Your task to perform on an android device: Search for hotels in London Image 0: 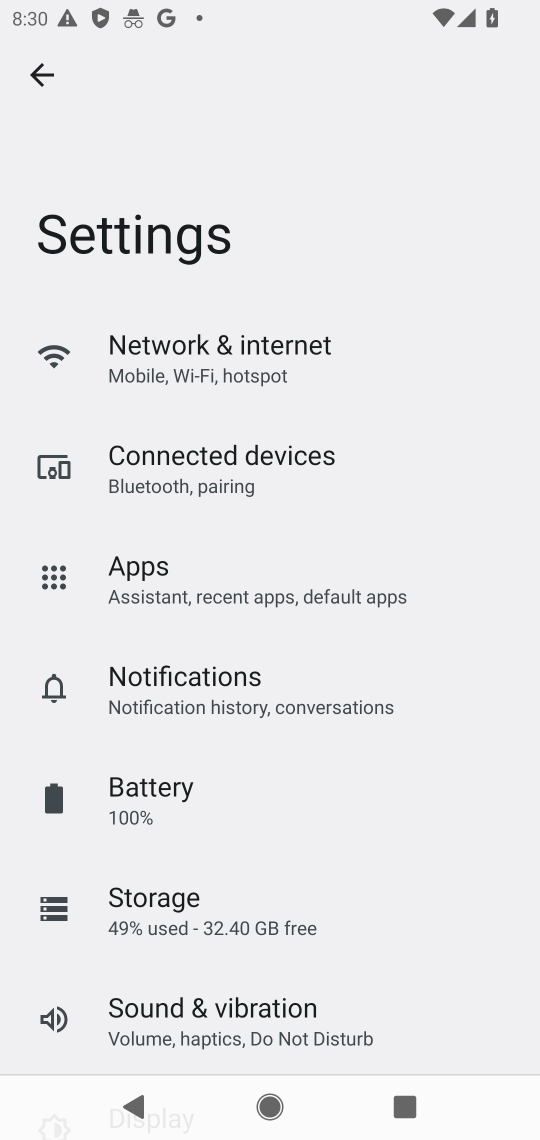
Step 0: press home button
Your task to perform on an android device: Search for hotels in London Image 1: 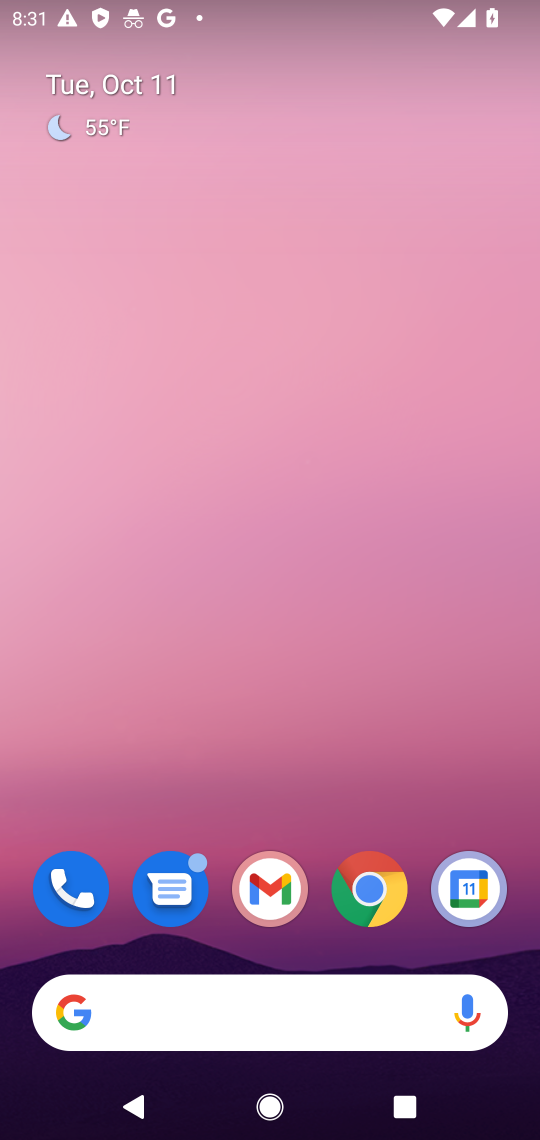
Step 1: click (280, 1011)
Your task to perform on an android device: Search for hotels in London Image 2: 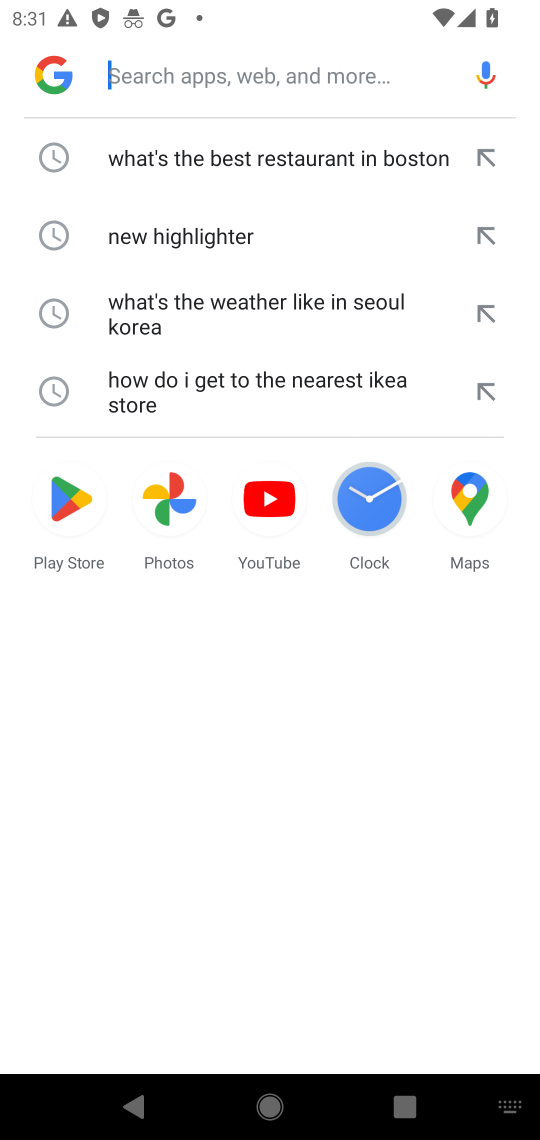
Step 2: click (149, 93)
Your task to perform on an android device: Search for hotels in London Image 3: 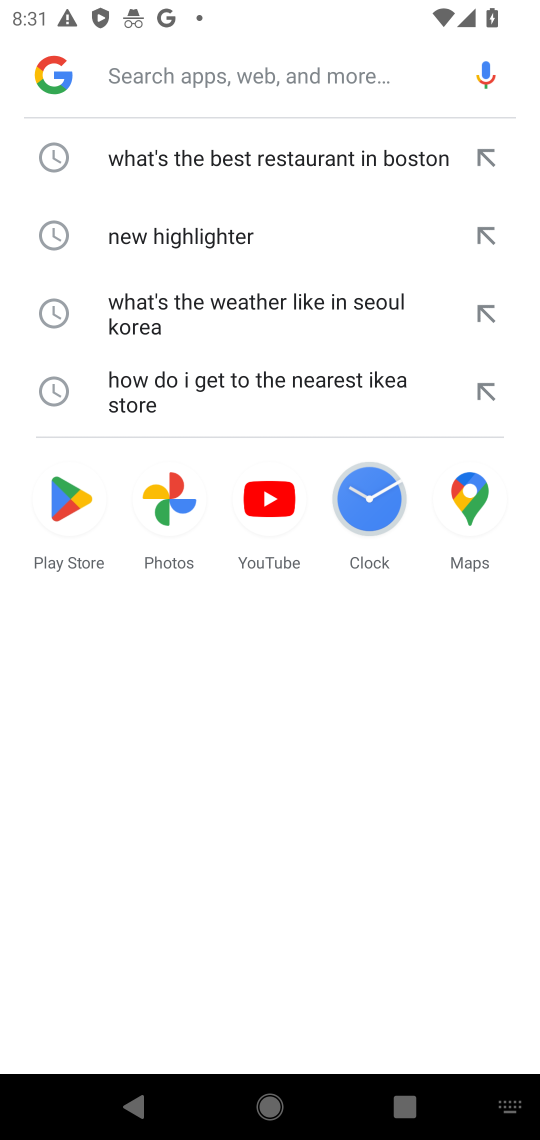
Step 3: type "hotels in London"
Your task to perform on an android device: Search for hotels in London Image 4: 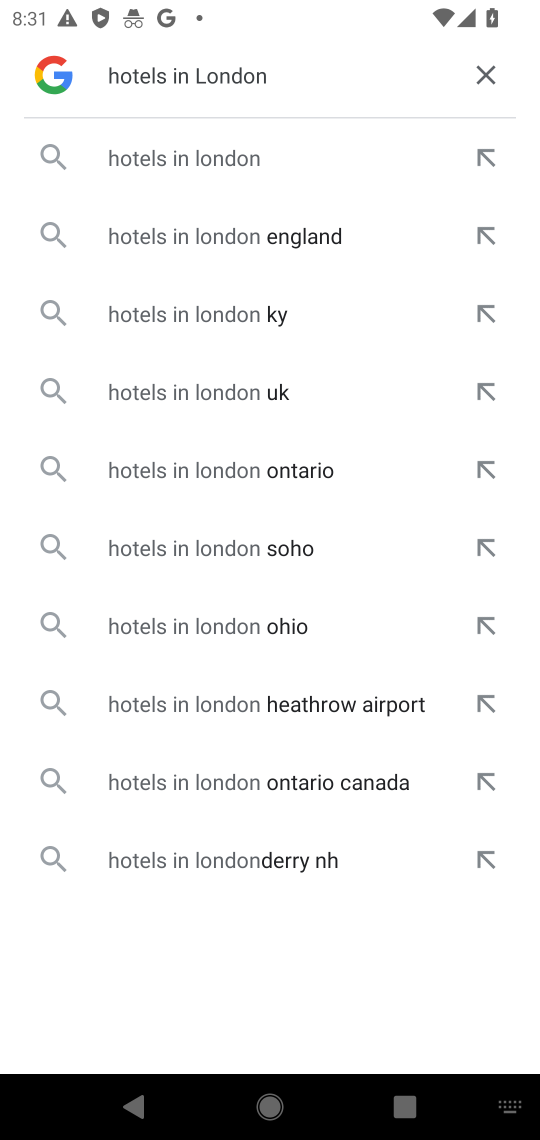
Step 4: click (177, 176)
Your task to perform on an android device: Search for hotels in London Image 5: 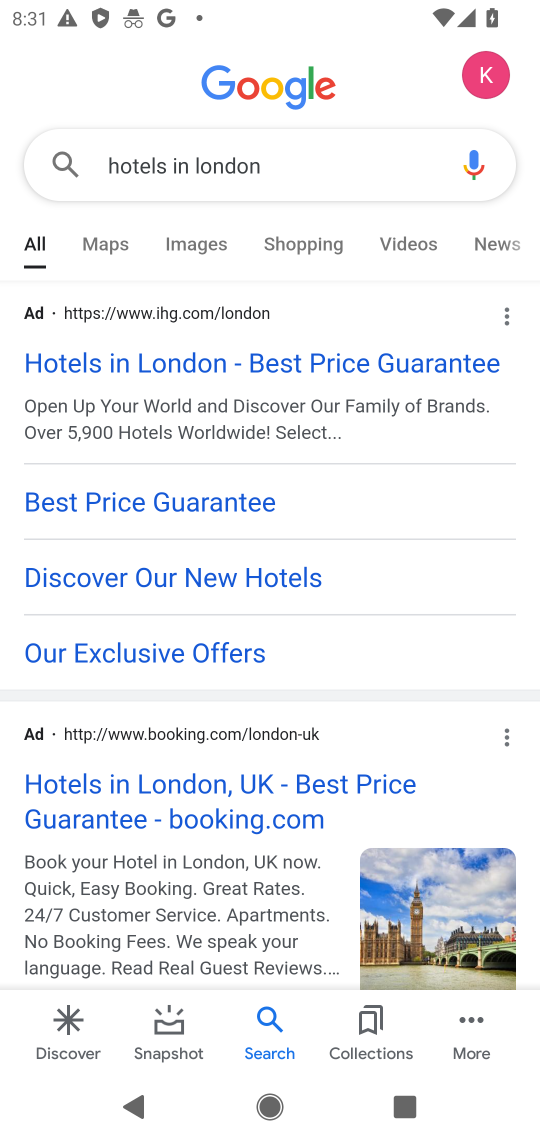
Step 5: click (123, 370)
Your task to perform on an android device: Search for hotels in London Image 6: 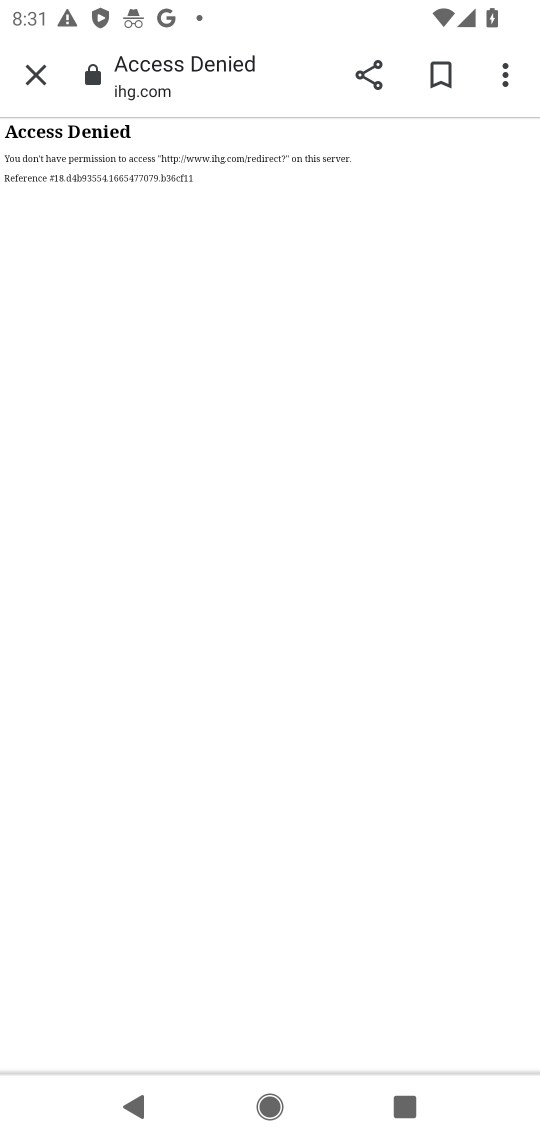
Step 6: task complete